Your task to perform on an android device: Is it going to rain today? Image 0: 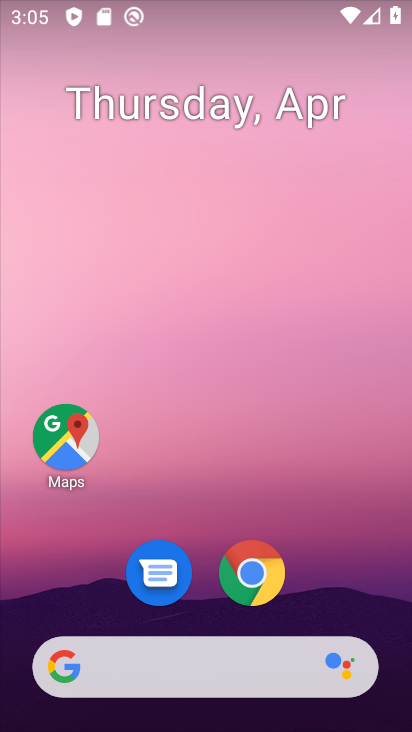
Step 0: drag from (343, 597) to (338, 548)
Your task to perform on an android device: Is it going to rain today? Image 1: 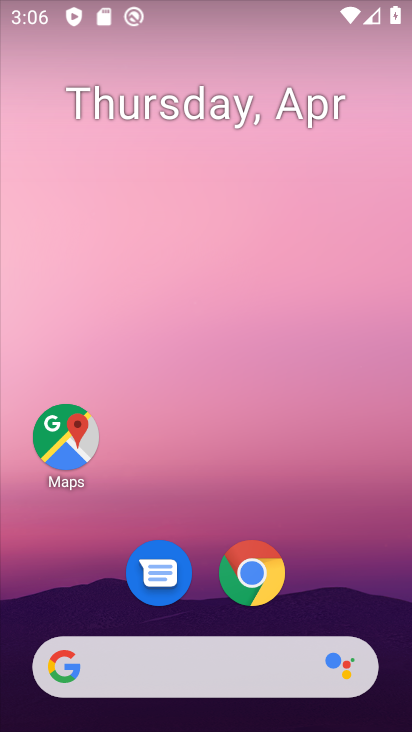
Step 1: click (171, 652)
Your task to perform on an android device: Is it going to rain today? Image 2: 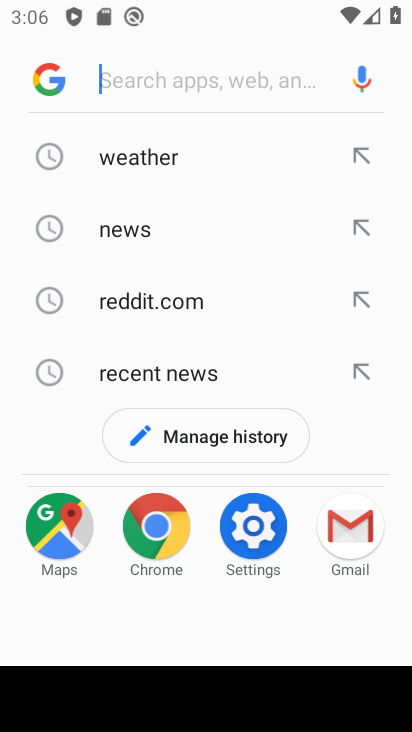
Step 2: click (179, 146)
Your task to perform on an android device: Is it going to rain today? Image 3: 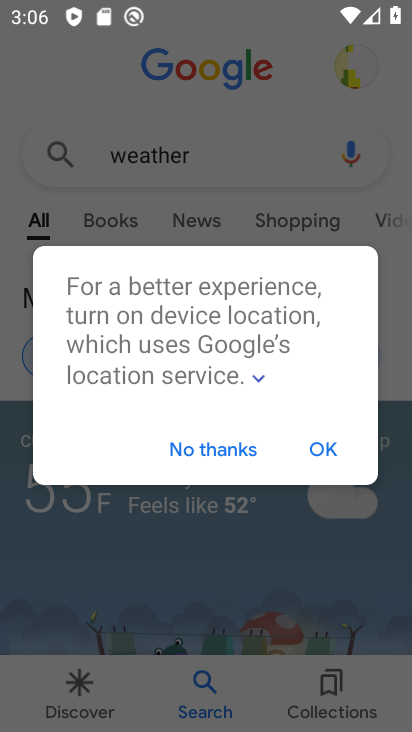
Step 3: click (216, 461)
Your task to perform on an android device: Is it going to rain today? Image 4: 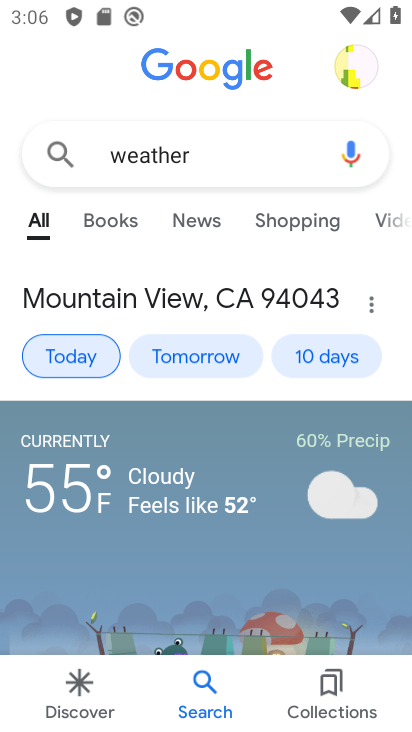
Step 4: task complete